Your task to perform on an android device: Show me the top rated dinnerware on Crate & Barrel Image 0: 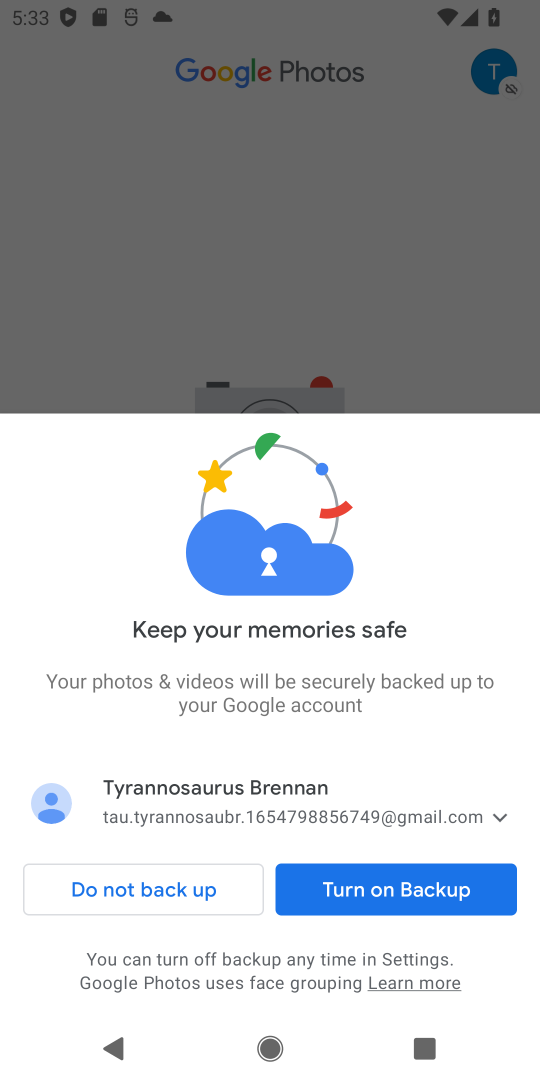
Step 0: press home button
Your task to perform on an android device: Show me the top rated dinnerware on Crate & Barrel Image 1: 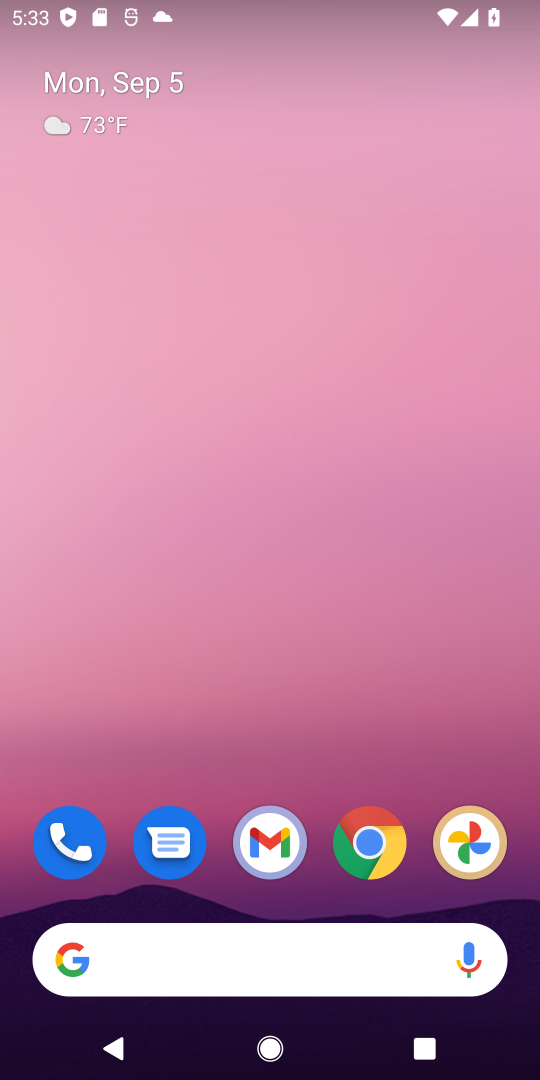
Step 1: click (372, 846)
Your task to perform on an android device: Show me the top rated dinnerware on Crate & Barrel Image 2: 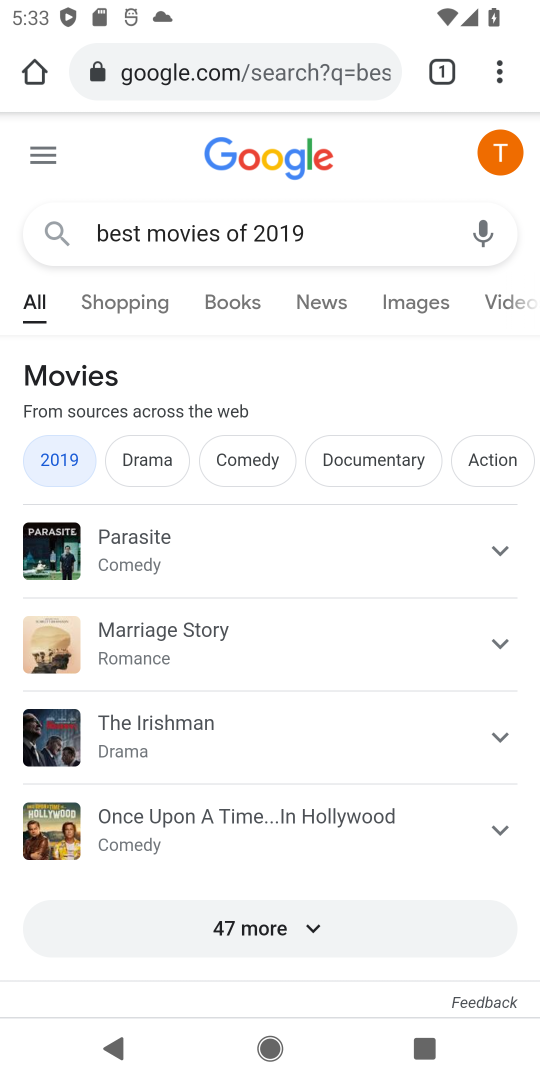
Step 2: click (352, 68)
Your task to perform on an android device: Show me the top rated dinnerware on Crate & Barrel Image 3: 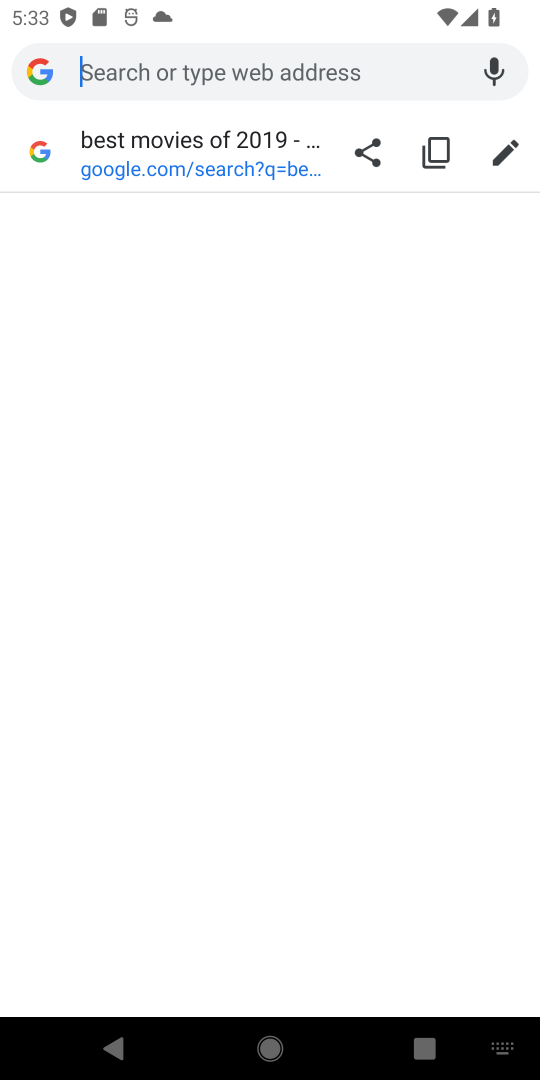
Step 3: type "Crate & Barrel"
Your task to perform on an android device: Show me the top rated dinnerware on Crate & Barrel Image 4: 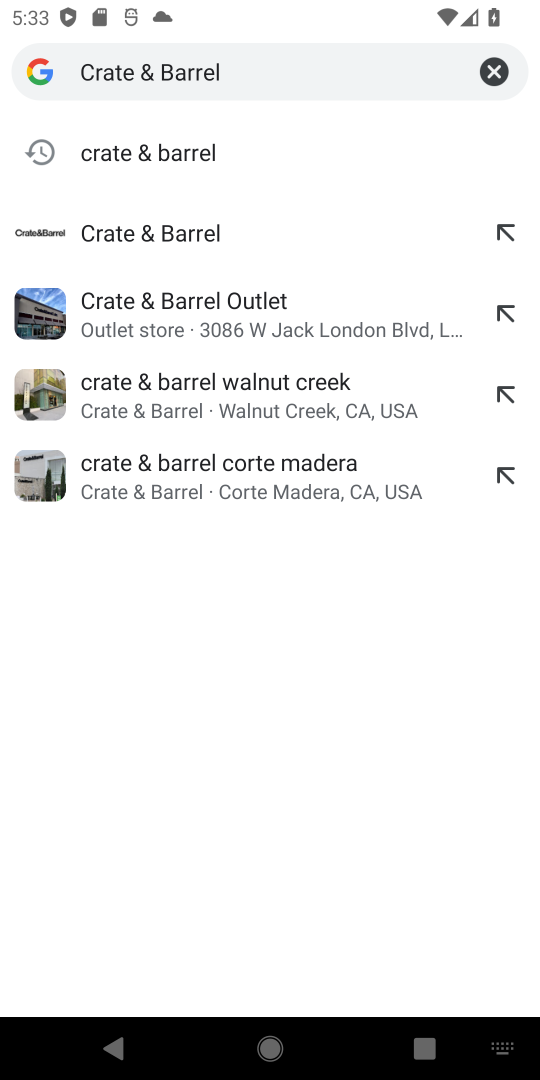
Step 4: click (181, 235)
Your task to perform on an android device: Show me the top rated dinnerware on Crate & Barrel Image 5: 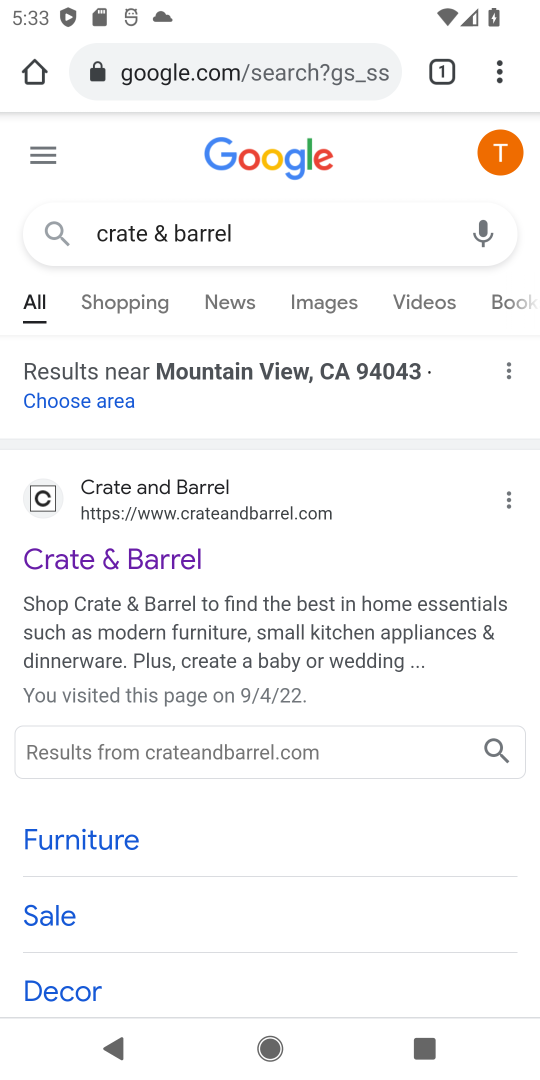
Step 5: click (211, 563)
Your task to perform on an android device: Show me the top rated dinnerware on Crate & Barrel Image 6: 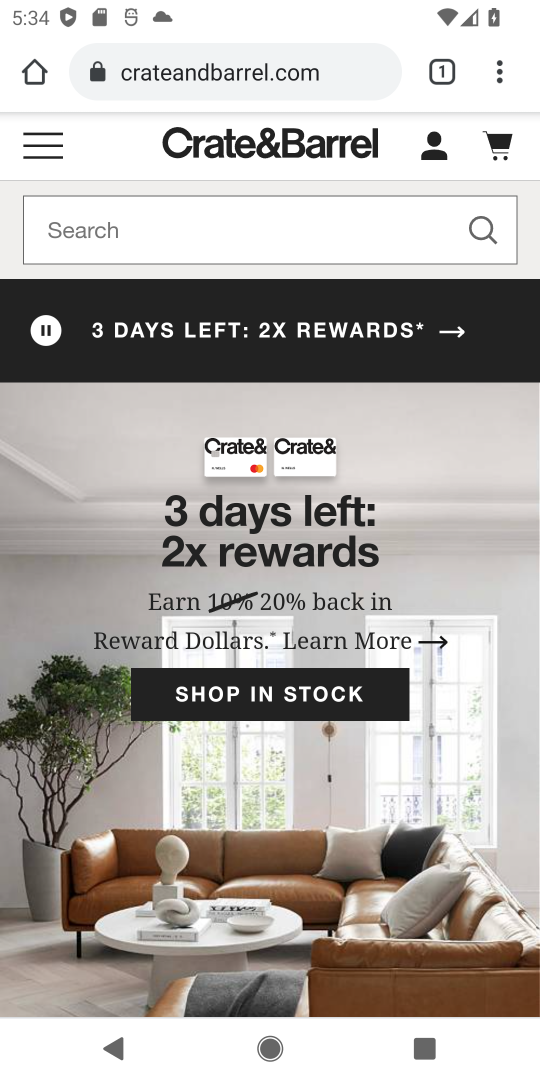
Step 6: click (229, 232)
Your task to perform on an android device: Show me the top rated dinnerware on Crate & Barrel Image 7: 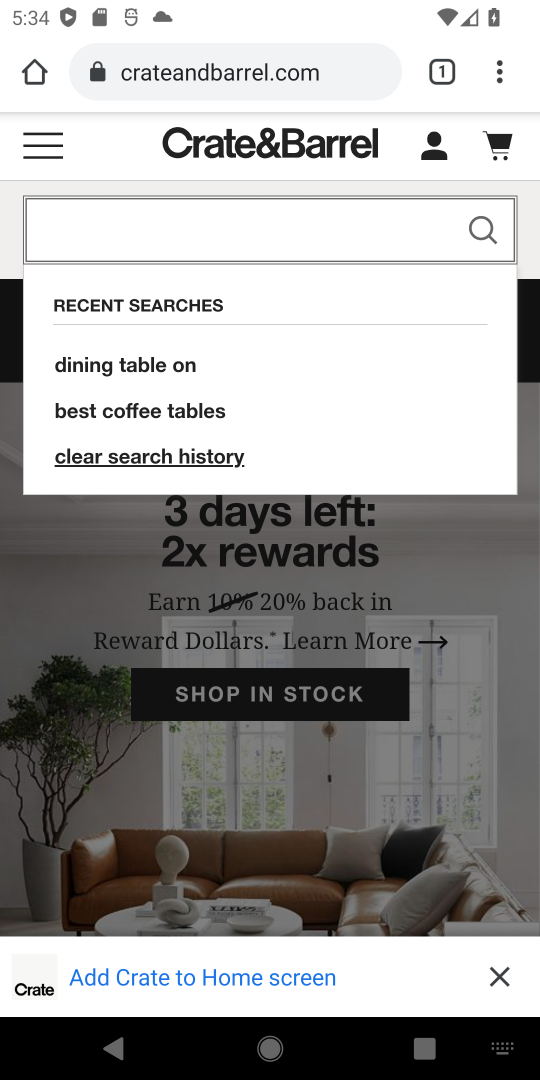
Step 7: type "top rated dinnerware"
Your task to perform on an android device: Show me the top rated dinnerware on Crate & Barrel Image 8: 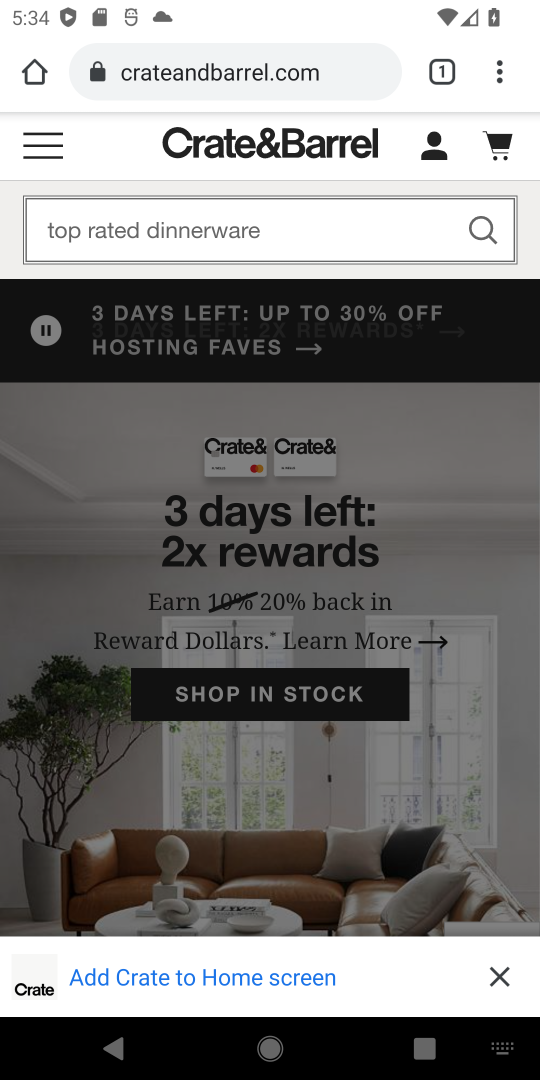
Step 8: click (494, 231)
Your task to perform on an android device: Show me the top rated dinnerware on Crate & Barrel Image 9: 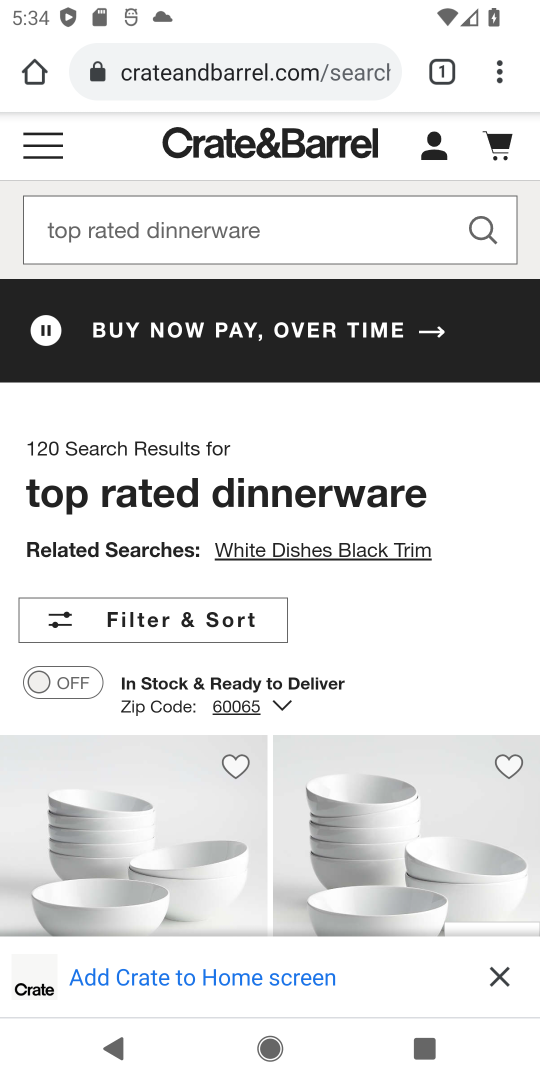
Step 9: drag from (409, 662) to (472, 299)
Your task to perform on an android device: Show me the top rated dinnerware on Crate & Barrel Image 10: 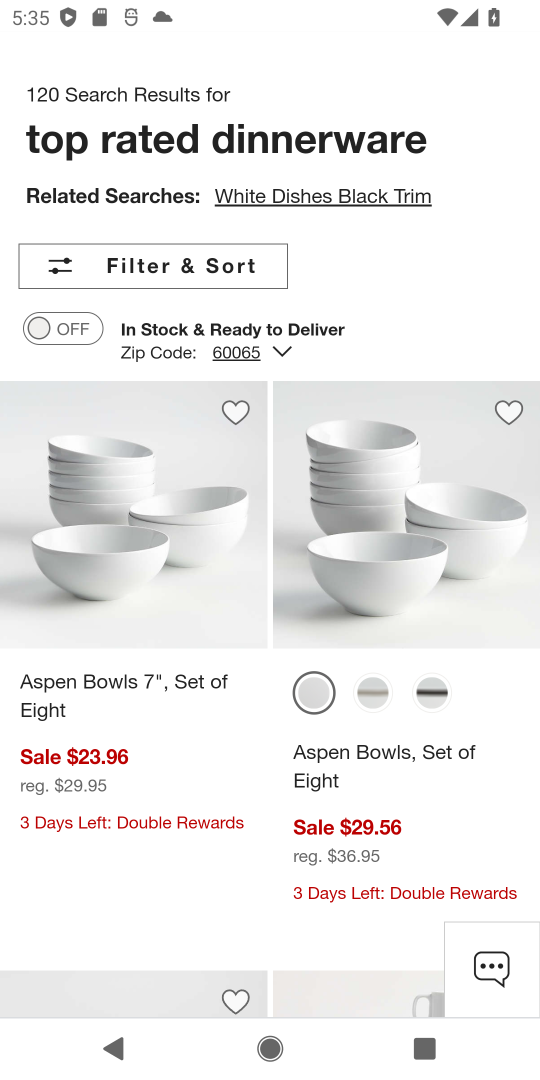
Step 10: drag from (204, 889) to (281, 559)
Your task to perform on an android device: Show me the top rated dinnerware on Crate & Barrel Image 11: 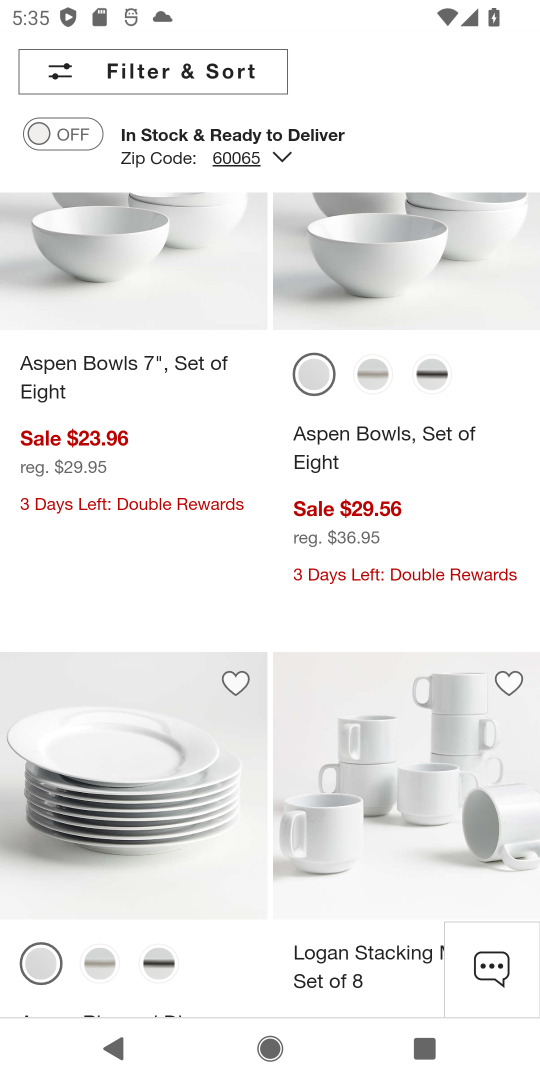
Step 11: click (362, 368)
Your task to perform on an android device: Show me the top rated dinnerware on Crate & Barrel Image 12: 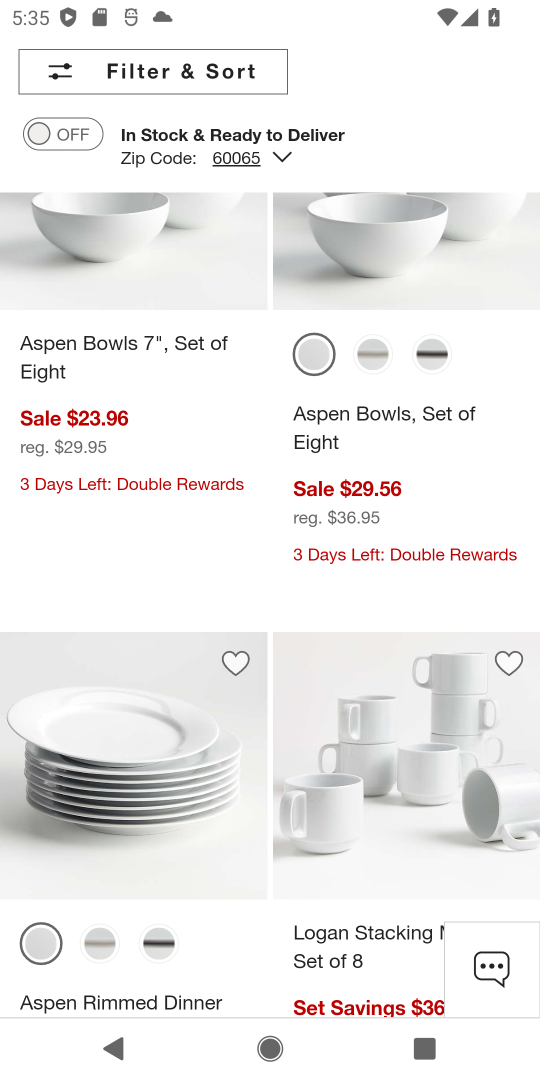
Step 12: task complete